Your task to perform on an android device: see tabs open on other devices in the chrome app Image 0: 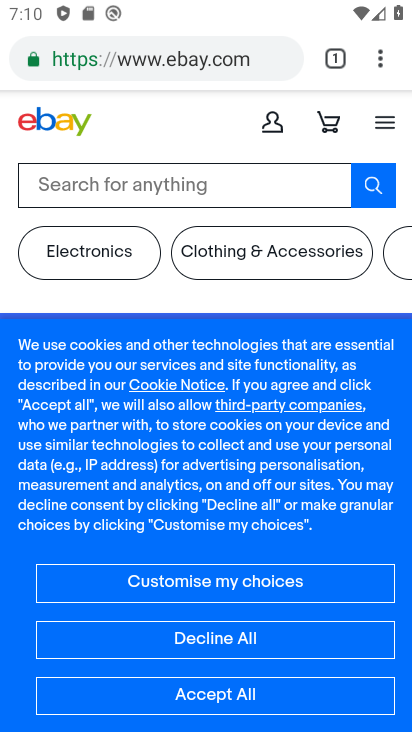
Step 0: press home button
Your task to perform on an android device: see tabs open on other devices in the chrome app Image 1: 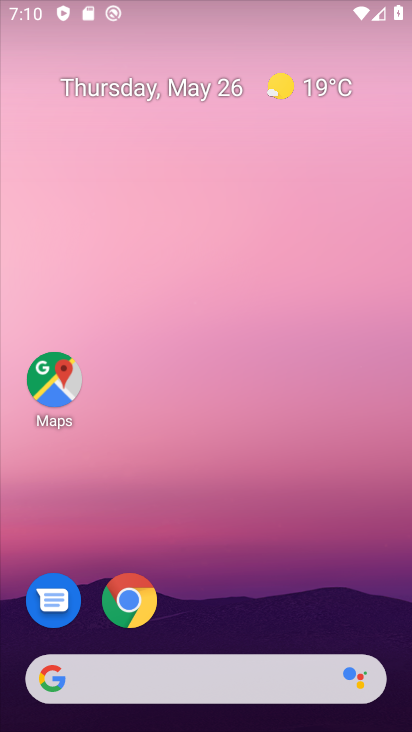
Step 1: drag from (306, 721) to (287, 57)
Your task to perform on an android device: see tabs open on other devices in the chrome app Image 2: 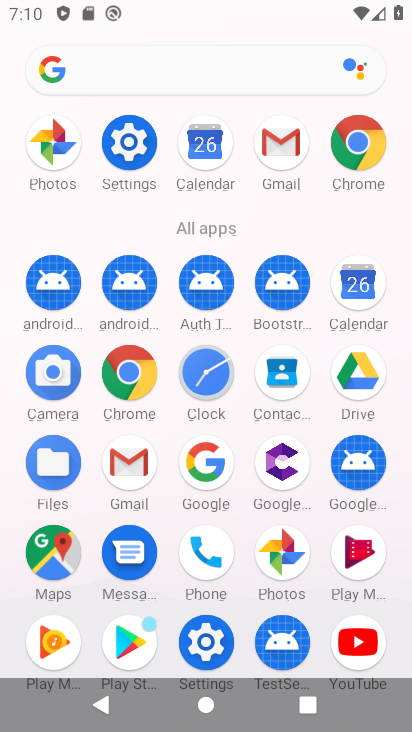
Step 2: click (368, 133)
Your task to perform on an android device: see tabs open on other devices in the chrome app Image 3: 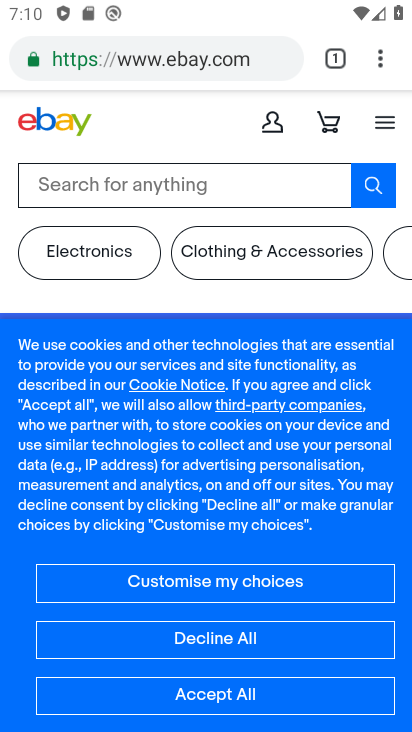
Step 3: click (386, 67)
Your task to perform on an android device: see tabs open on other devices in the chrome app Image 4: 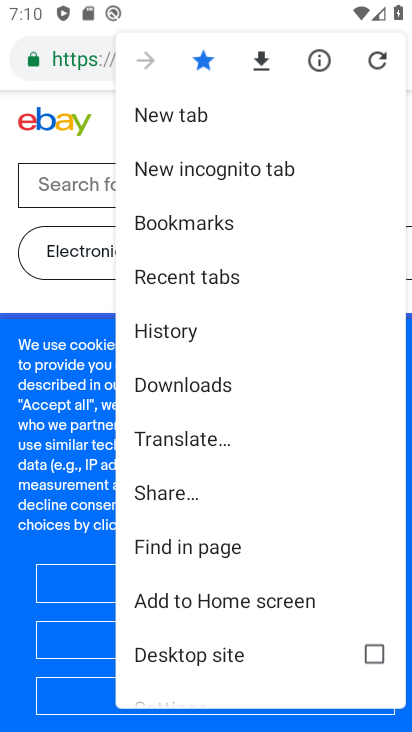
Step 4: drag from (204, 521) to (272, 591)
Your task to perform on an android device: see tabs open on other devices in the chrome app Image 5: 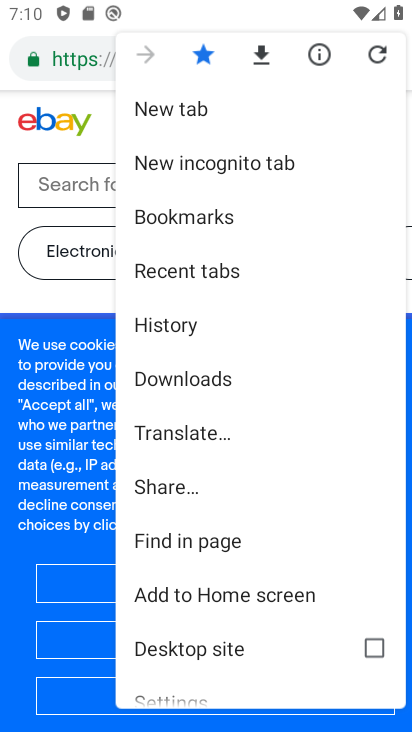
Step 5: click (68, 149)
Your task to perform on an android device: see tabs open on other devices in the chrome app Image 6: 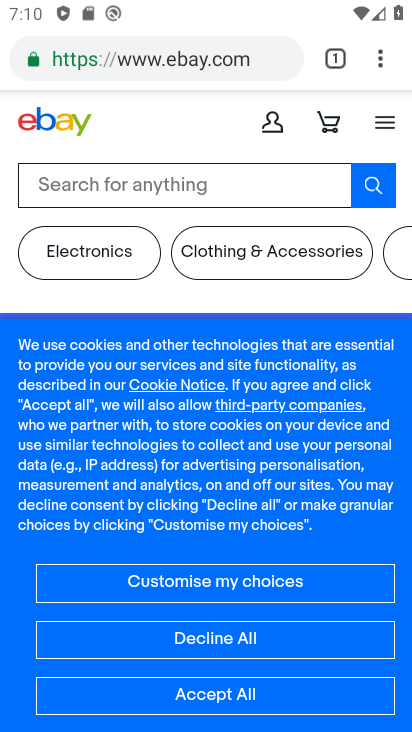
Step 6: click (330, 47)
Your task to perform on an android device: see tabs open on other devices in the chrome app Image 7: 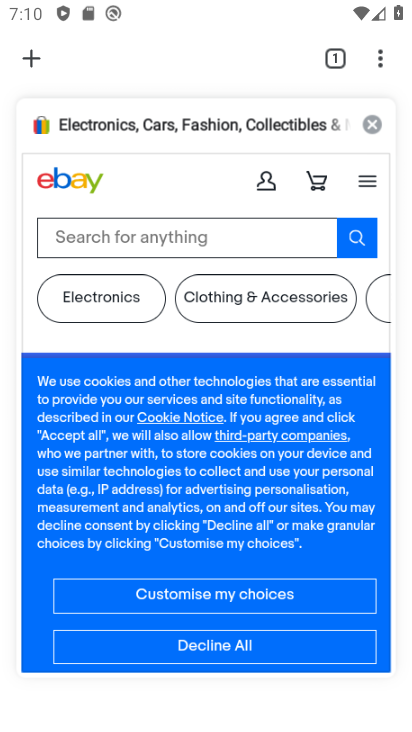
Step 7: click (41, 49)
Your task to perform on an android device: see tabs open on other devices in the chrome app Image 8: 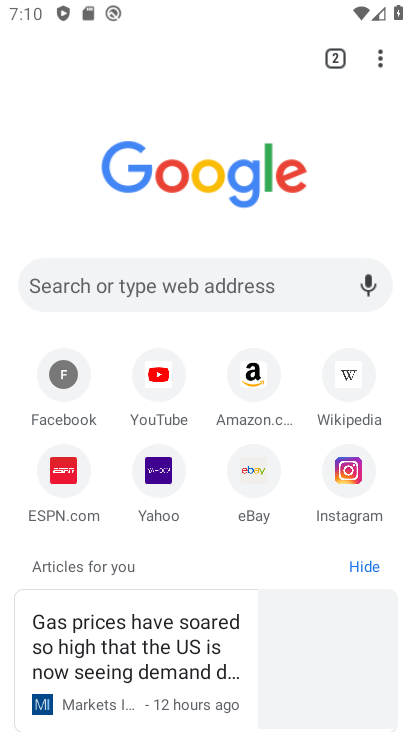
Step 8: task complete